Your task to perform on an android device: turn off location Image 0: 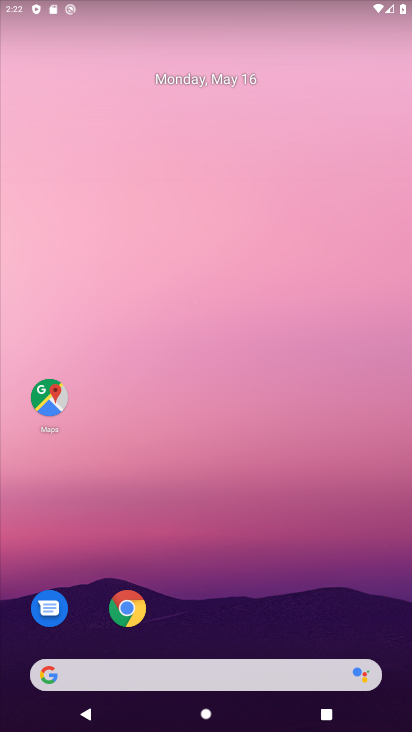
Step 0: drag from (213, 637) to (298, 2)
Your task to perform on an android device: turn off location Image 1: 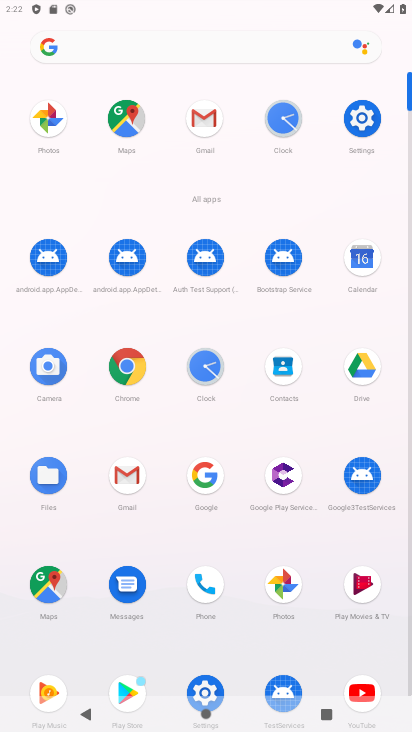
Step 1: click (366, 133)
Your task to perform on an android device: turn off location Image 2: 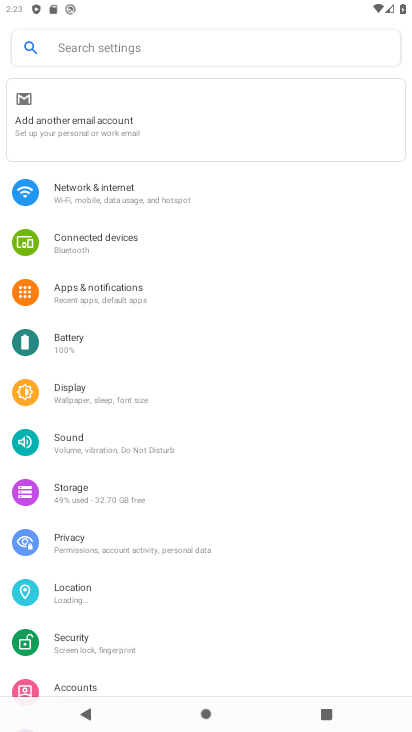
Step 2: click (62, 599)
Your task to perform on an android device: turn off location Image 3: 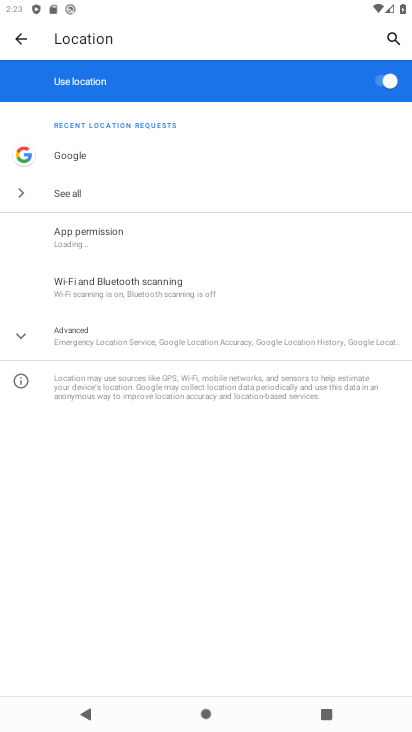
Step 3: click (397, 76)
Your task to perform on an android device: turn off location Image 4: 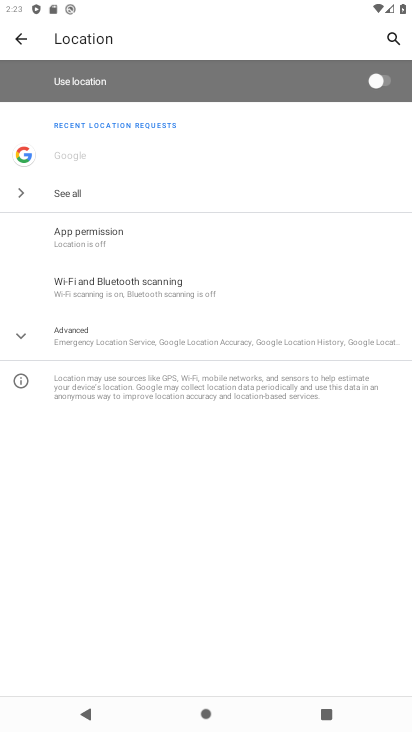
Step 4: task complete